Your task to perform on an android device: check the backup settings in the google photos Image 0: 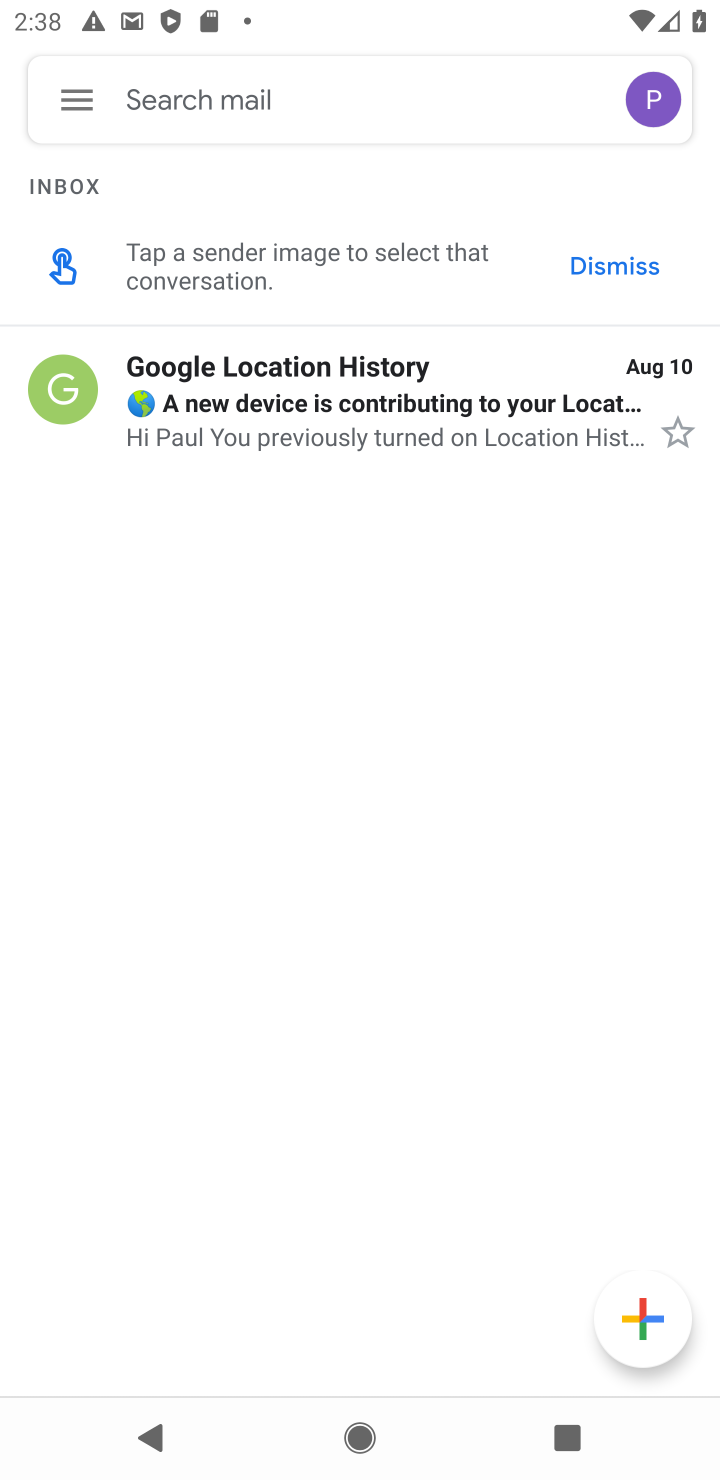
Step 0: press home button
Your task to perform on an android device: check the backup settings in the google photos Image 1: 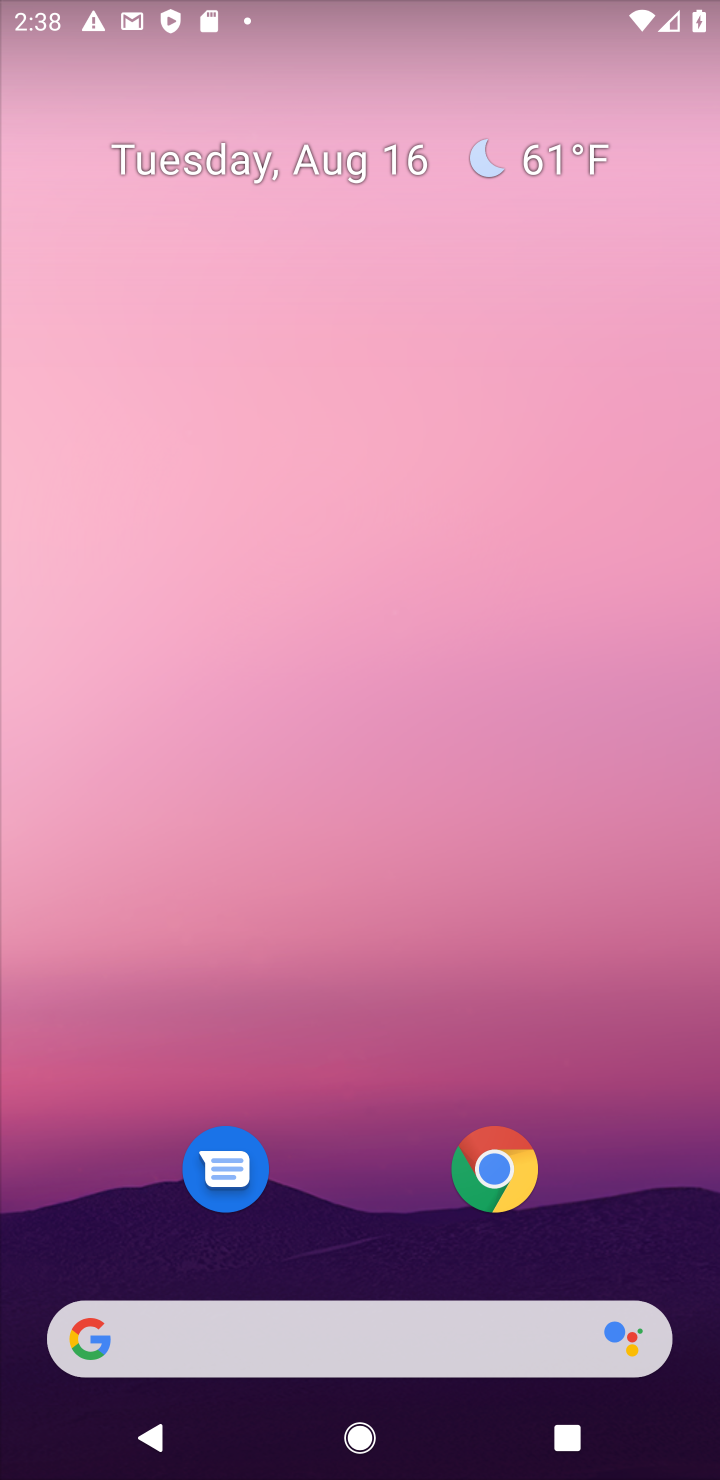
Step 1: drag from (457, 846) to (546, 168)
Your task to perform on an android device: check the backup settings in the google photos Image 2: 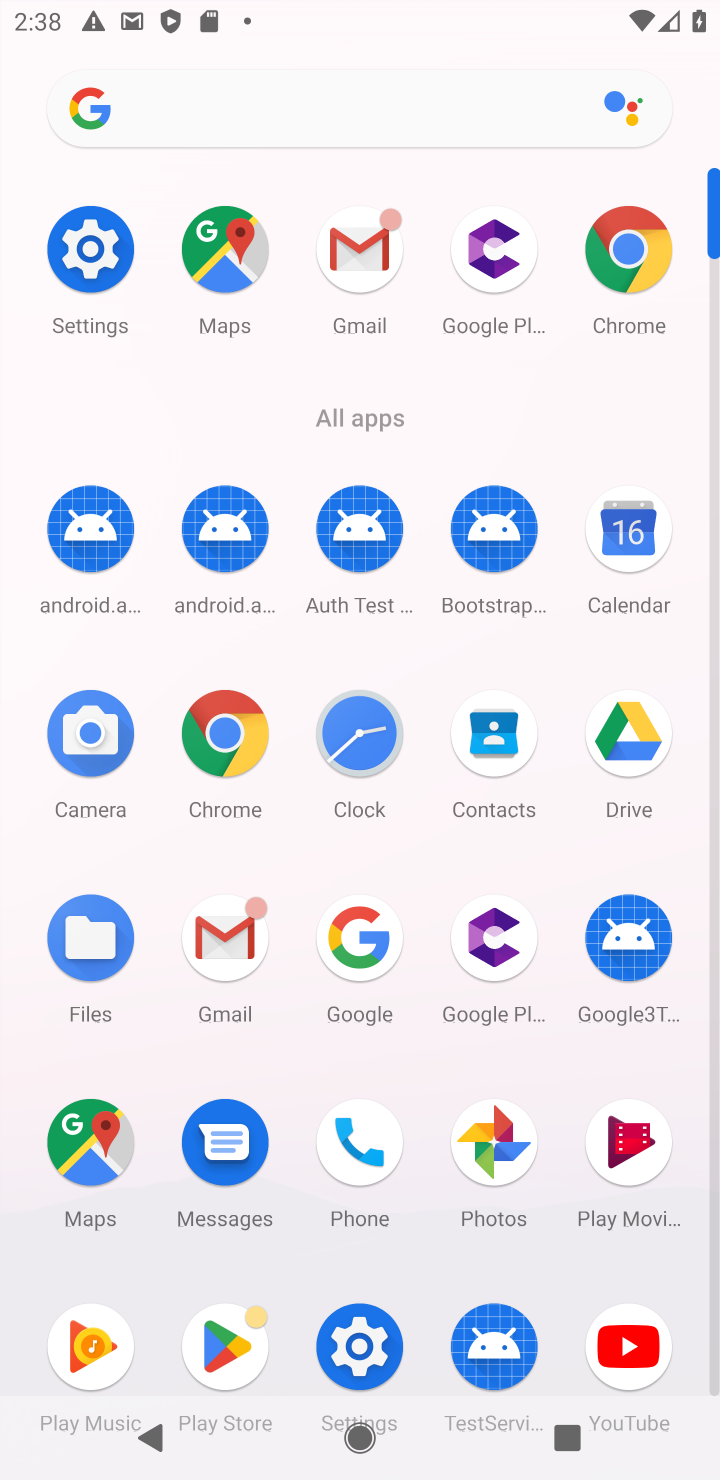
Step 2: click (482, 1124)
Your task to perform on an android device: check the backup settings in the google photos Image 3: 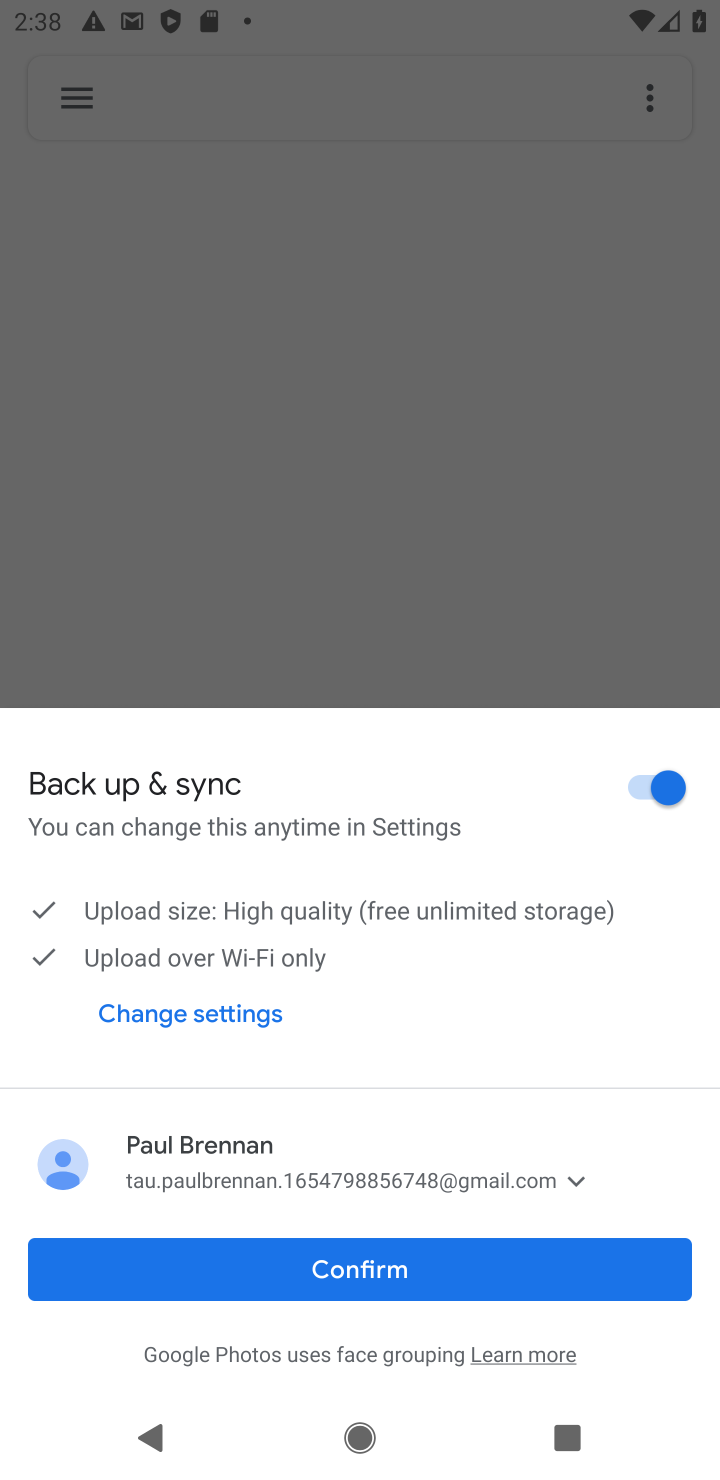
Step 3: click (380, 1263)
Your task to perform on an android device: check the backup settings in the google photos Image 4: 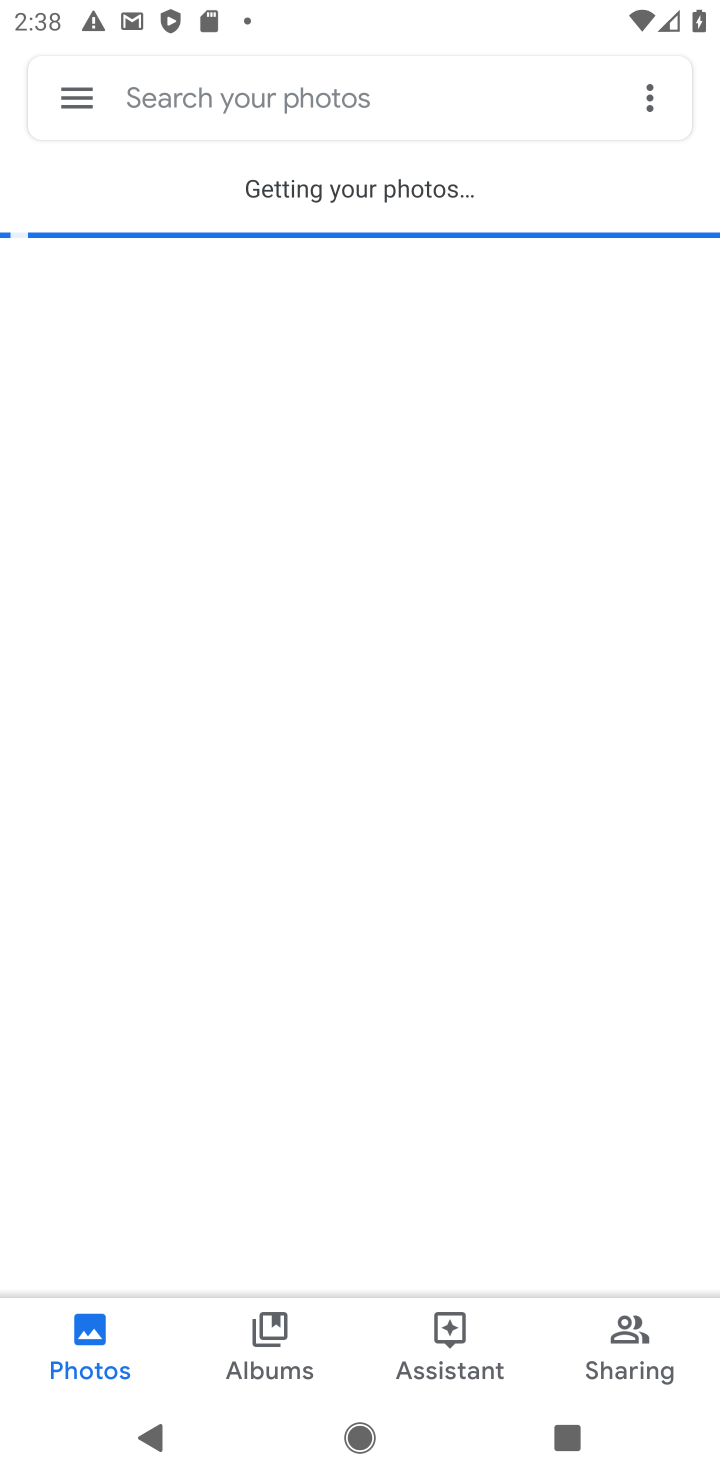
Step 4: click (75, 91)
Your task to perform on an android device: check the backup settings in the google photos Image 5: 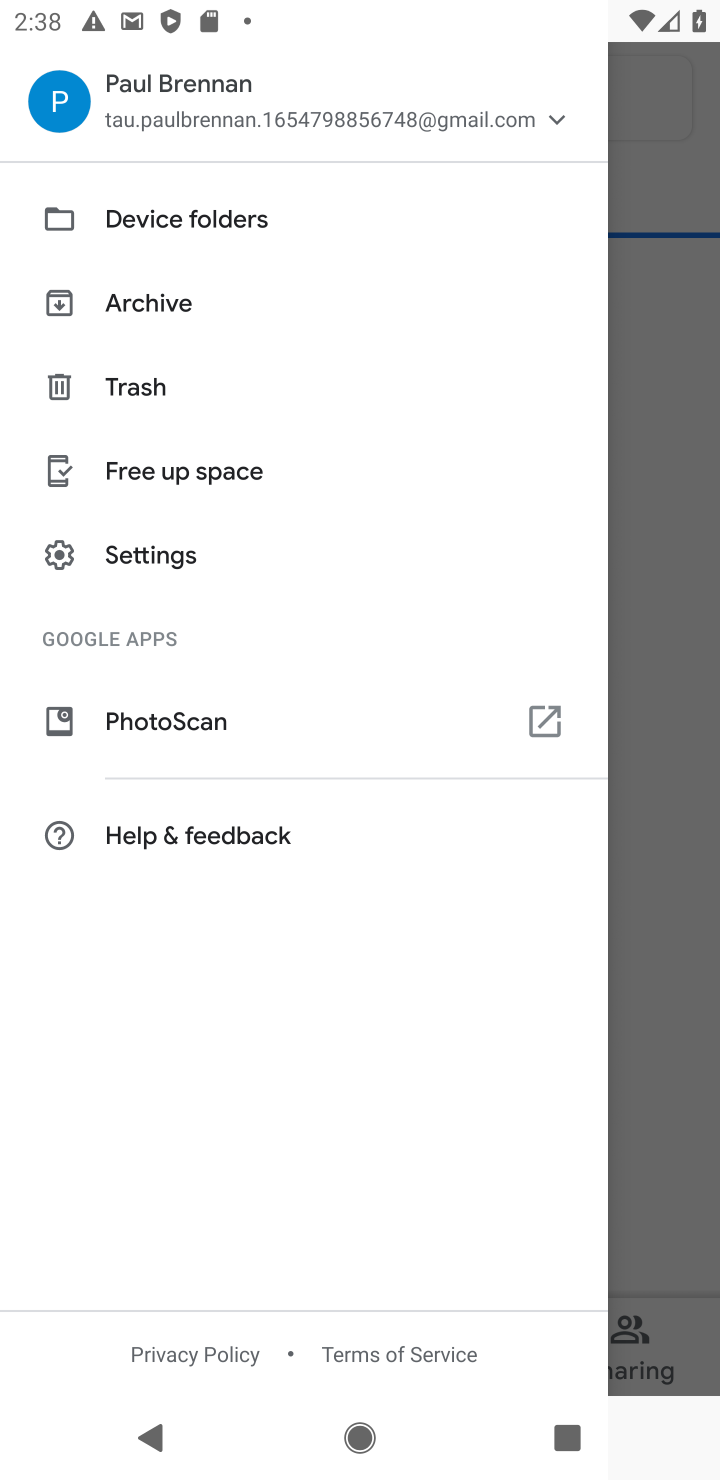
Step 5: click (191, 559)
Your task to perform on an android device: check the backup settings in the google photos Image 6: 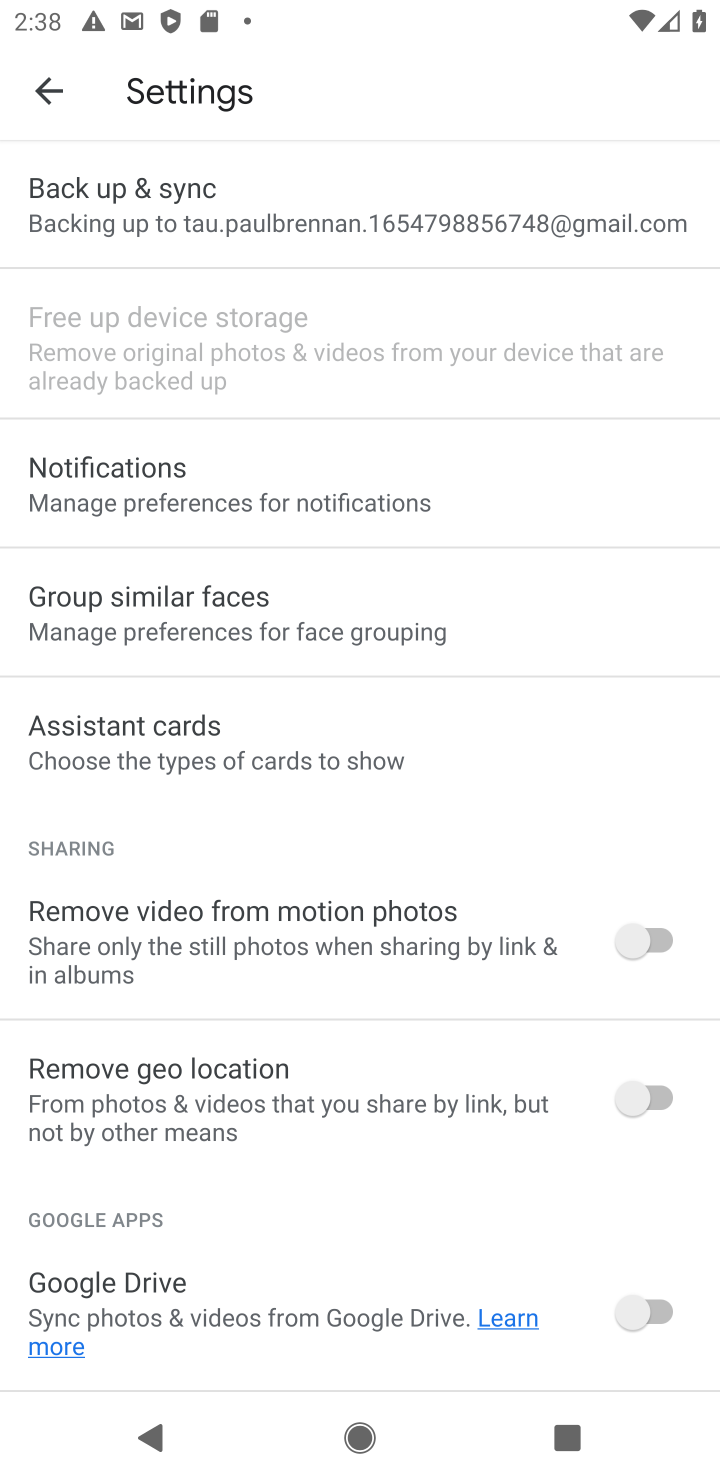
Step 6: click (301, 218)
Your task to perform on an android device: check the backup settings in the google photos Image 7: 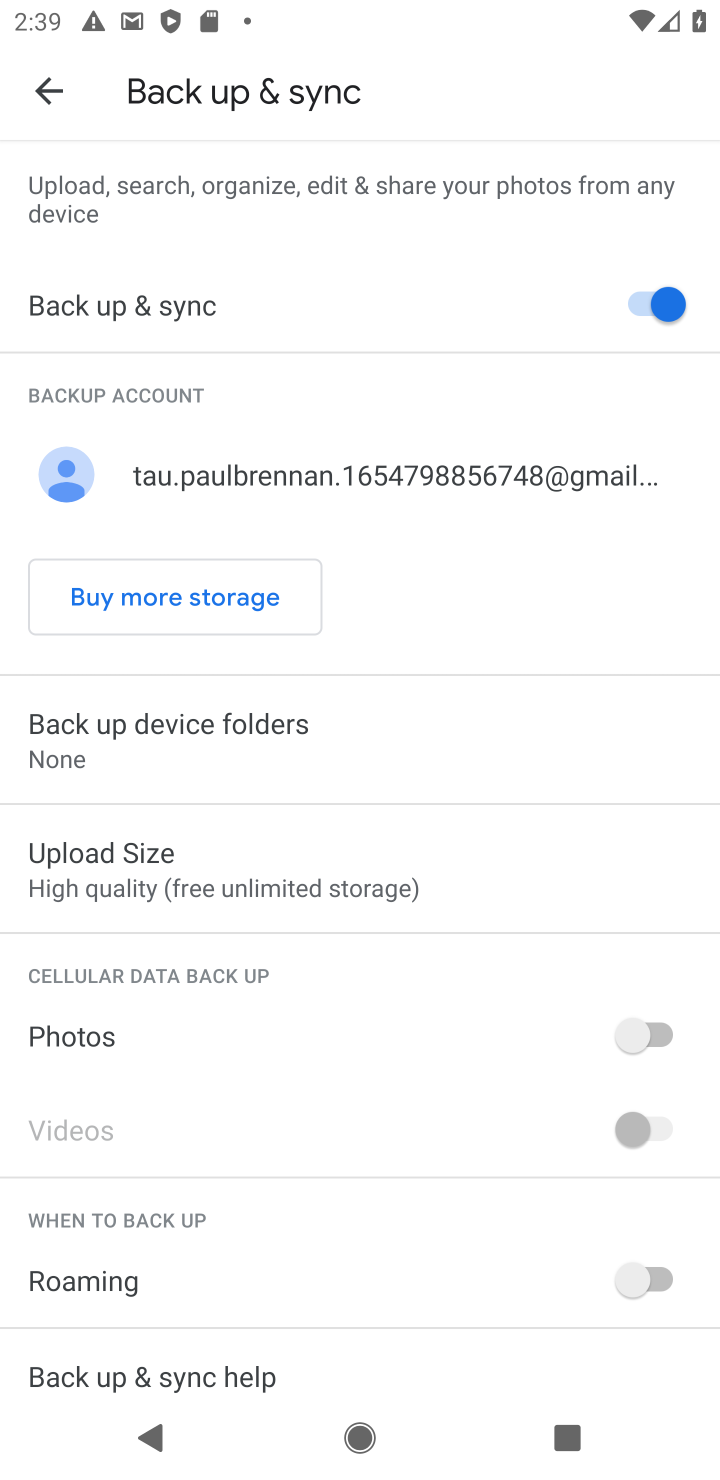
Step 7: task complete